Your task to perform on an android device: install app "Pluto TV - Live TV and Movies" Image 0: 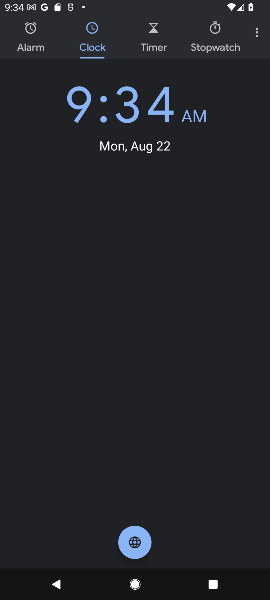
Step 0: press home button
Your task to perform on an android device: install app "Pluto TV - Live TV and Movies" Image 1: 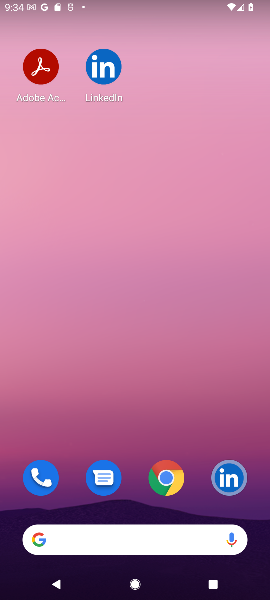
Step 1: drag from (138, 516) to (159, 34)
Your task to perform on an android device: install app "Pluto TV - Live TV and Movies" Image 2: 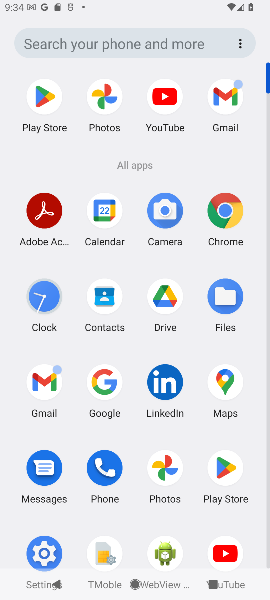
Step 2: click (49, 98)
Your task to perform on an android device: install app "Pluto TV - Live TV and Movies" Image 3: 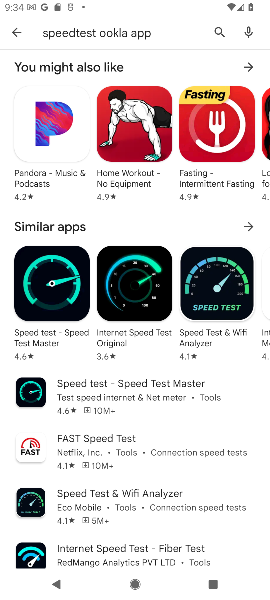
Step 3: click (227, 32)
Your task to perform on an android device: install app "Pluto TV - Live TV and Movies" Image 4: 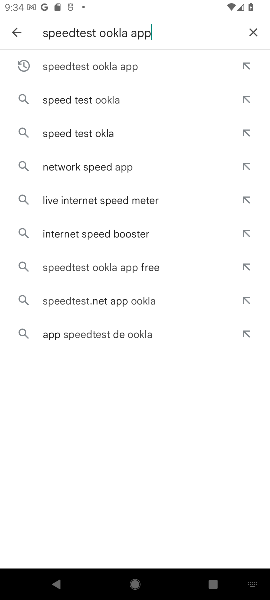
Step 4: click (244, 32)
Your task to perform on an android device: install app "Pluto TV - Live TV and Movies" Image 5: 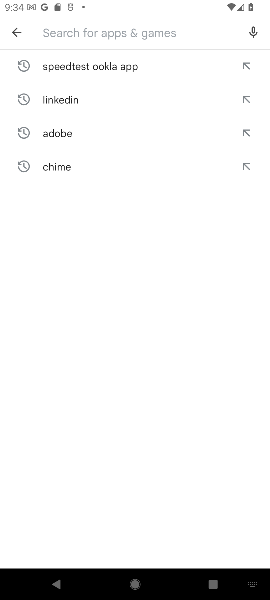
Step 5: type "pluto"
Your task to perform on an android device: install app "Pluto TV - Live TV and Movies" Image 6: 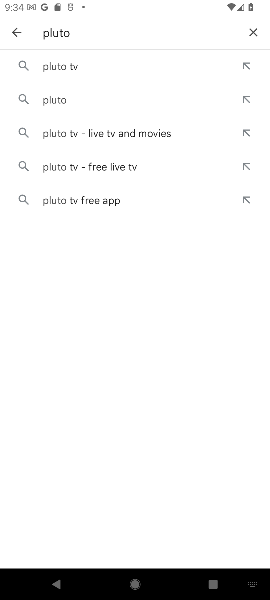
Step 6: click (81, 72)
Your task to perform on an android device: install app "Pluto TV - Live TV and Movies" Image 7: 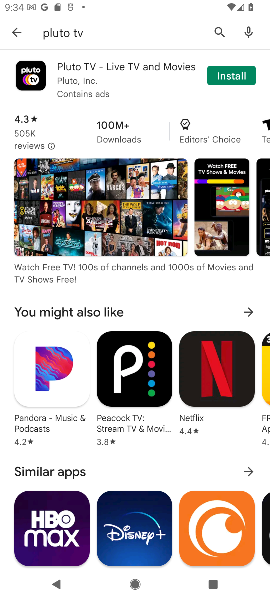
Step 7: click (251, 77)
Your task to perform on an android device: install app "Pluto TV - Live TV and Movies" Image 8: 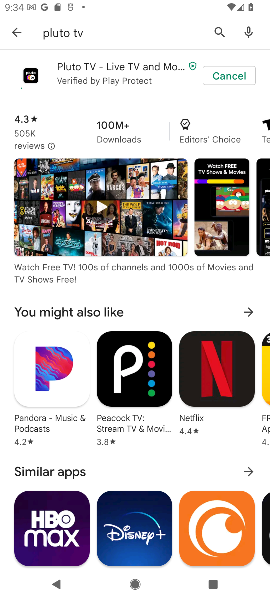
Step 8: task complete